Your task to perform on an android device: check battery use Image 0: 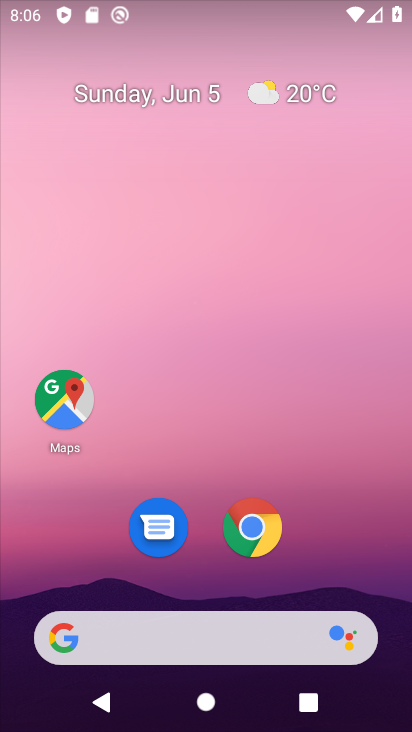
Step 0: drag from (331, 498) to (306, 2)
Your task to perform on an android device: check battery use Image 1: 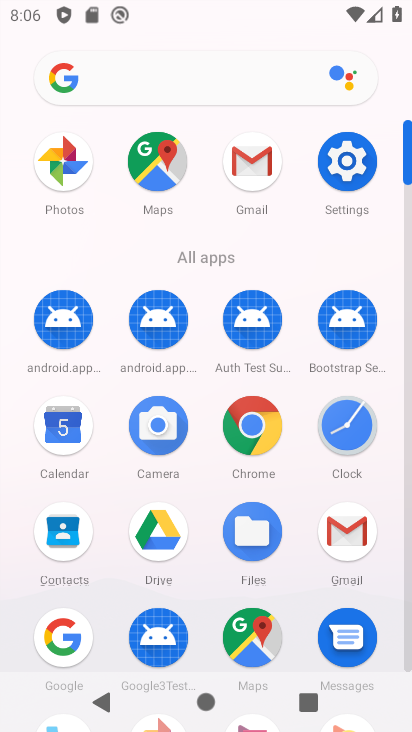
Step 1: click (358, 168)
Your task to perform on an android device: check battery use Image 2: 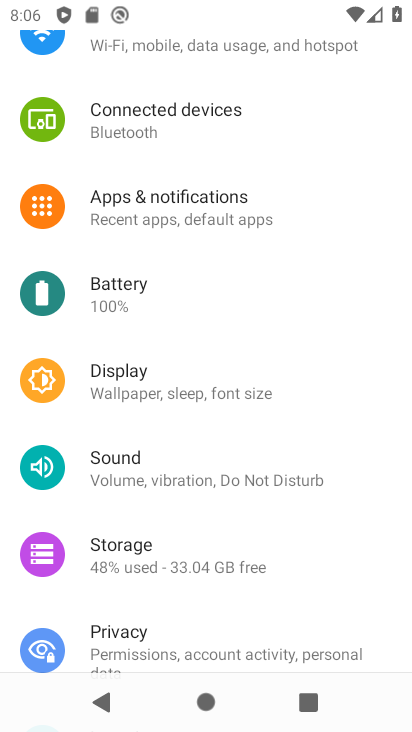
Step 2: click (84, 325)
Your task to perform on an android device: check battery use Image 3: 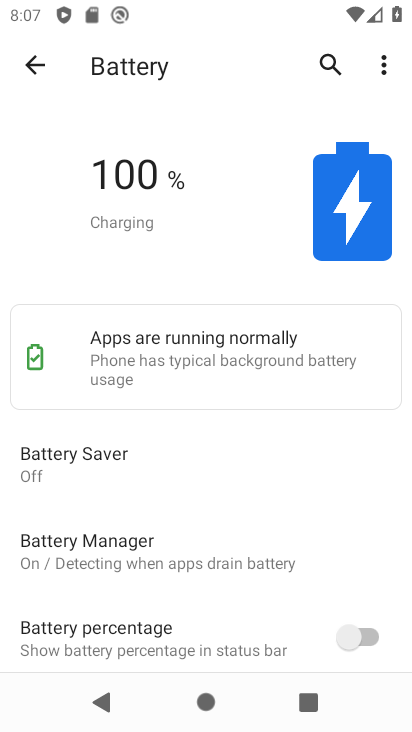
Step 3: task complete